Your task to perform on an android device: turn on sleep mode Image 0: 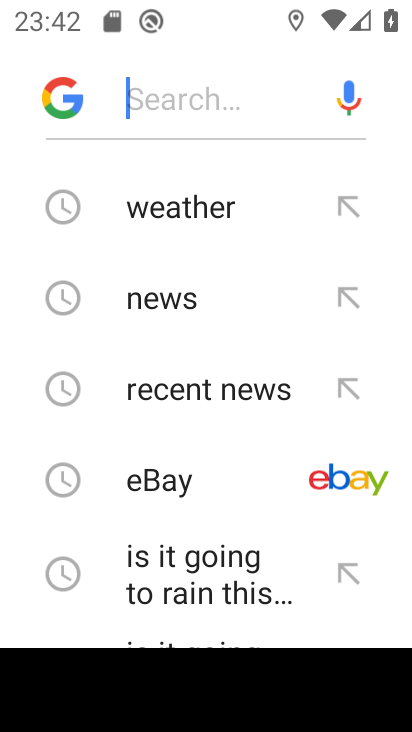
Step 0: press home button
Your task to perform on an android device: turn on sleep mode Image 1: 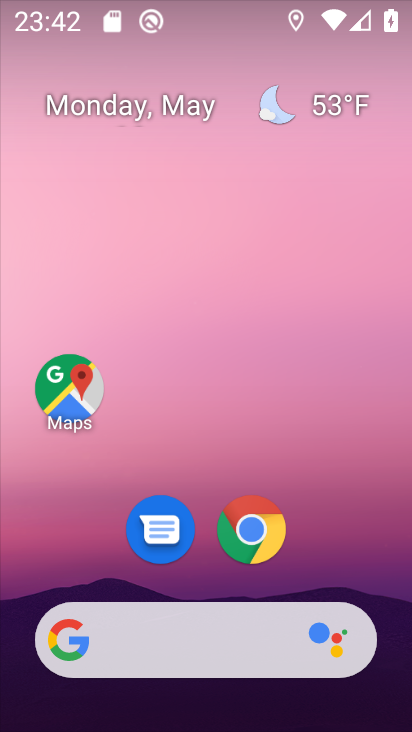
Step 1: drag from (348, 493) to (215, 22)
Your task to perform on an android device: turn on sleep mode Image 2: 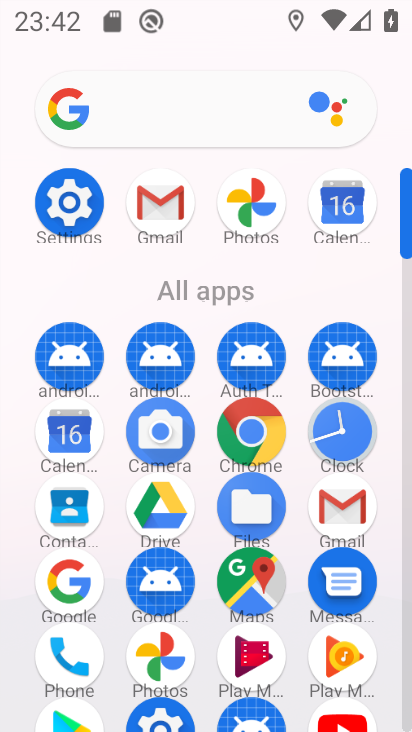
Step 2: click (74, 215)
Your task to perform on an android device: turn on sleep mode Image 3: 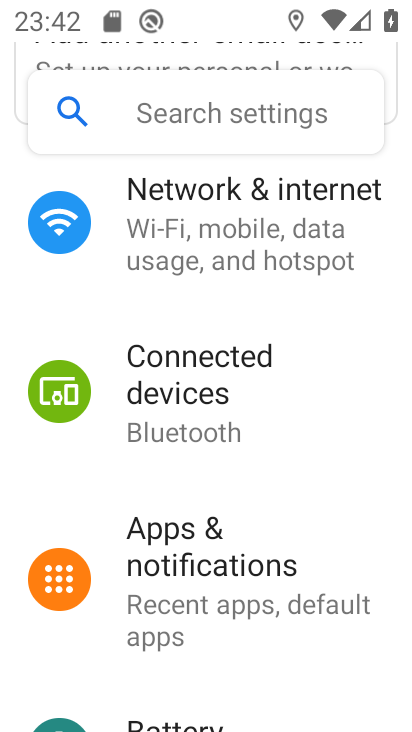
Step 3: drag from (304, 473) to (309, 147)
Your task to perform on an android device: turn on sleep mode Image 4: 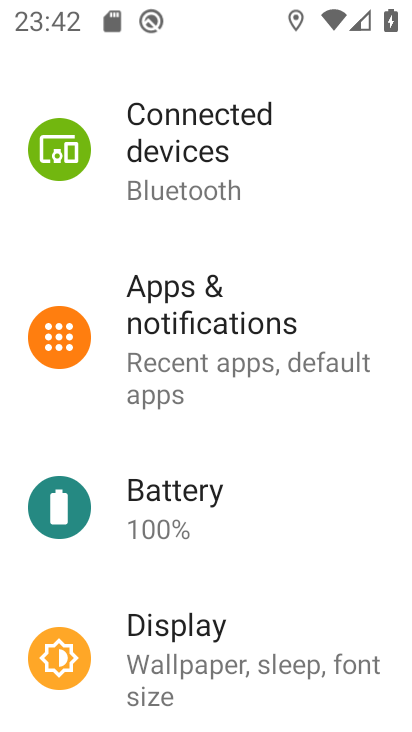
Step 4: click (250, 652)
Your task to perform on an android device: turn on sleep mode Image 5: 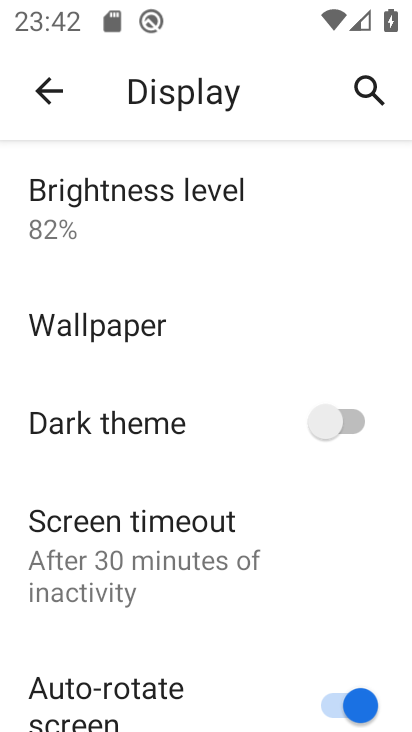
Step 5: drag from (135, 600) to (188, 210)
Your task to perform on an android device: turn on sleep mode Image 6: 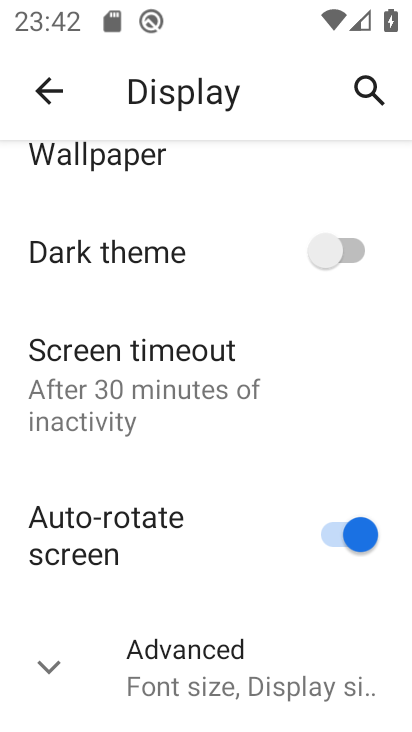
Step 6: click (217, 670)
Your task to perform on an android device: turn on sleep mode Image 7: 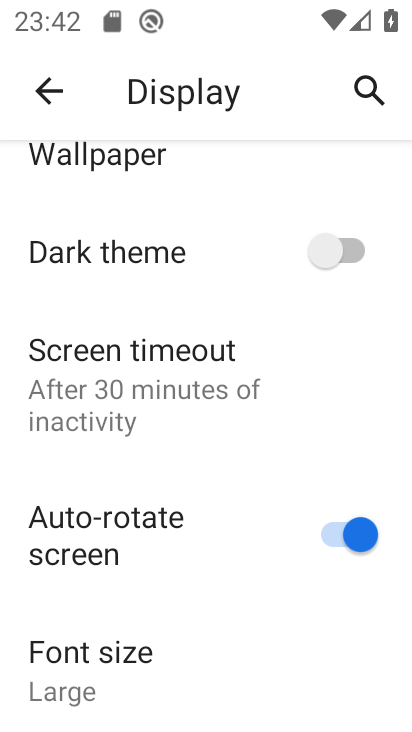
Step 7: task complete